Your task to perform on an android device: Go to notification settings Image 0: 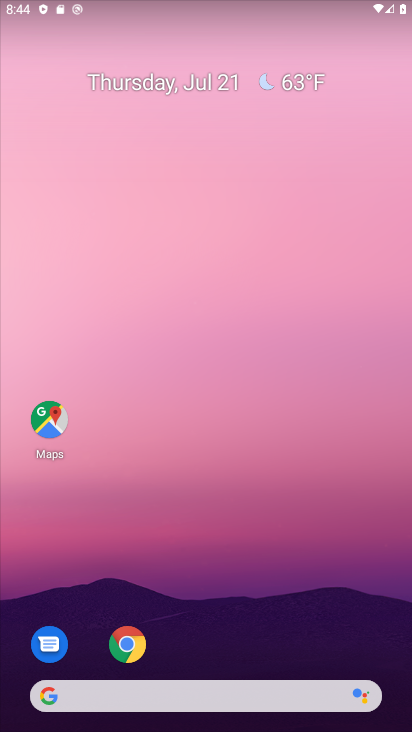
Step 0: press home button
Your task to perform on an android device: Go to notification settings Image 1: 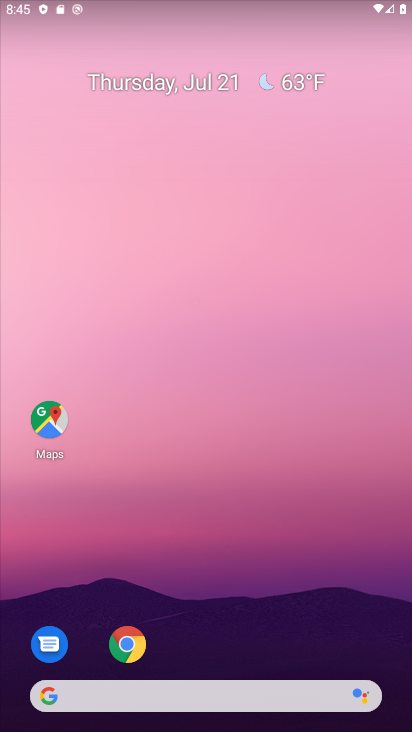
Step 1: drag from (208, 652) to (203, 0)
Your task to perform on an android device: Go to notification settings Image 2: 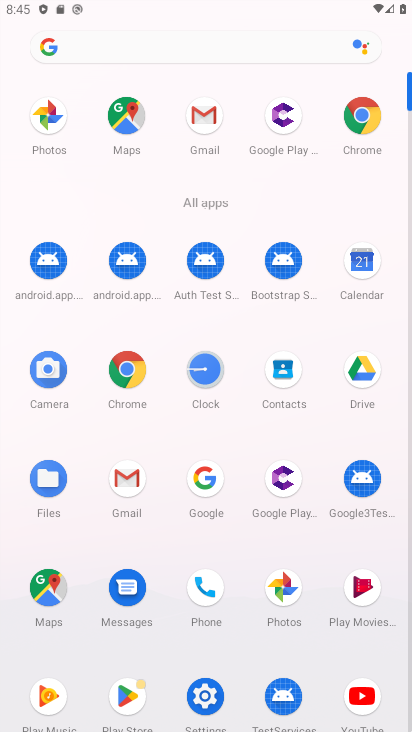
Step 2: click (208, 691)
Your task to perform on an android device: Go to notification settings Image 3: 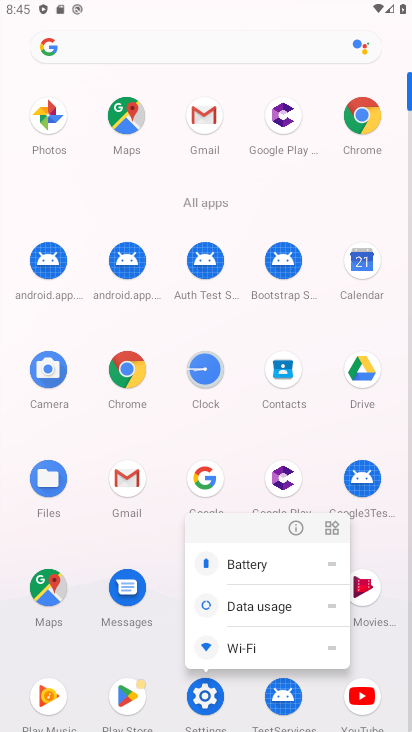
Step 3: click (201, 693)
Your task to perform on an android device: Go to notification settings Image 4: 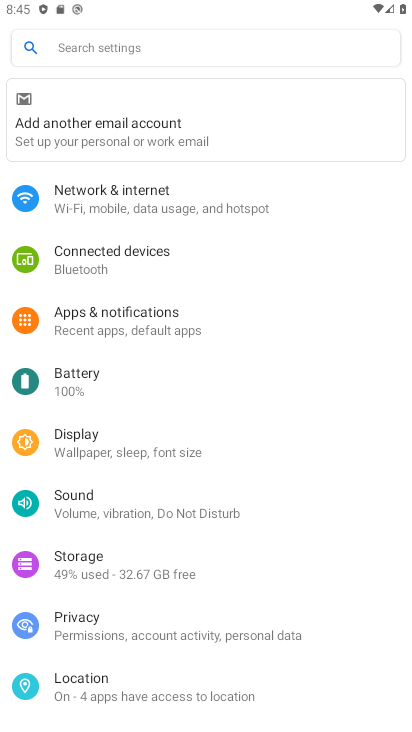
Step 4: click (199, 309)
Your task to perform on an android device: Go to notification settings Image 5: 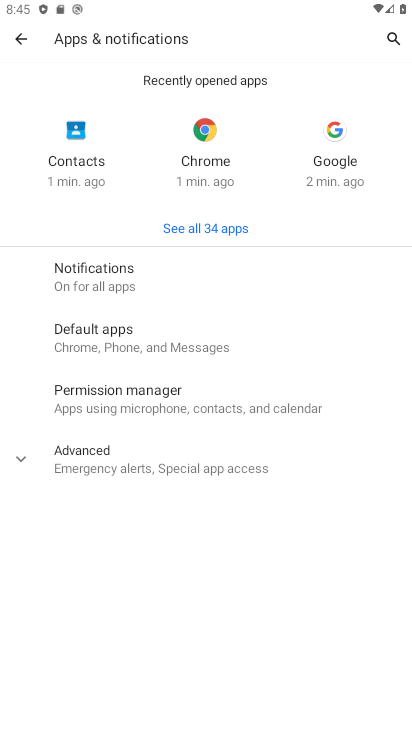
Step 5: click (115, 274)
Your task to perform on an android device: Go to notification settings Image 6: 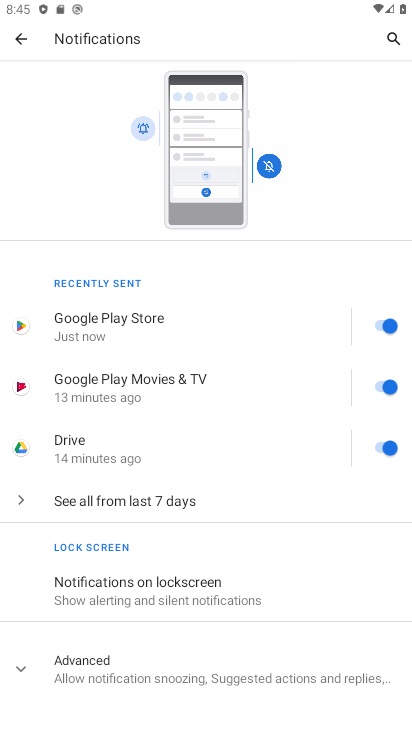
Step 6: click (22, 663)
Your task to perform on an android device: Go to notification settings Image 7: 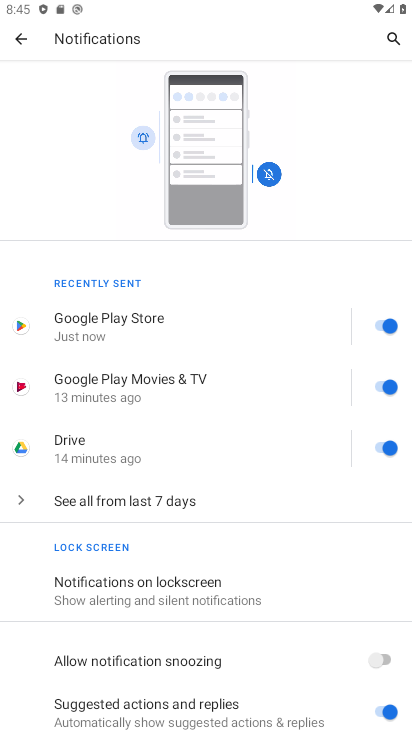
Step 7: task complete